Your task to perform on an android device: open the mobile data screen to see how much data has been used Image 0: 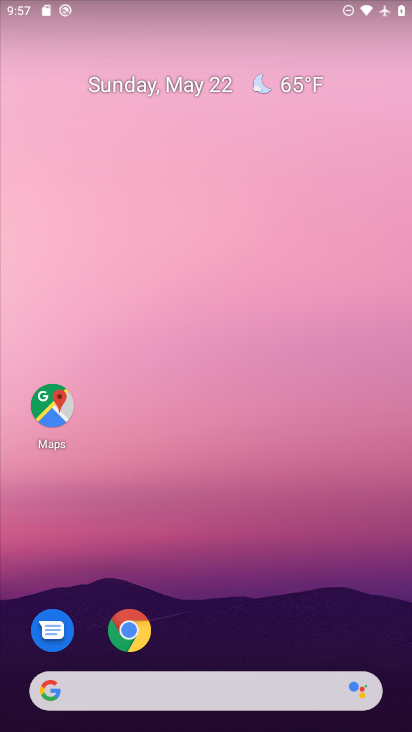
Step 0: press home button
Your task to perform on an android device: open the mobile data screen to see how much data has been used Image 1: 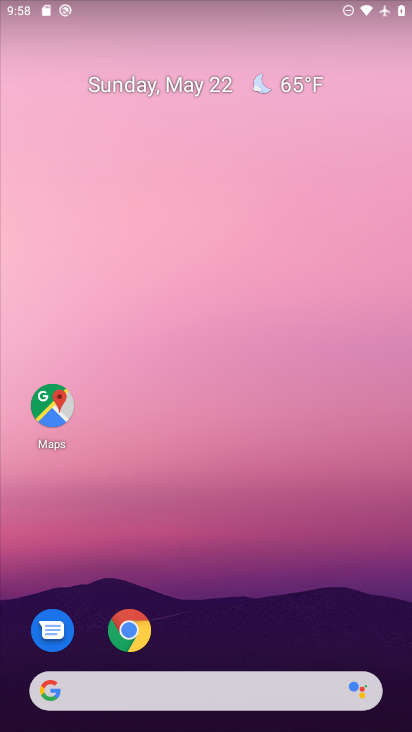
Step 1: drag from (153, 688) to (244, 197)
Your task to perform on an android device: open the mobile data screen to see how much data has been used Image 2: 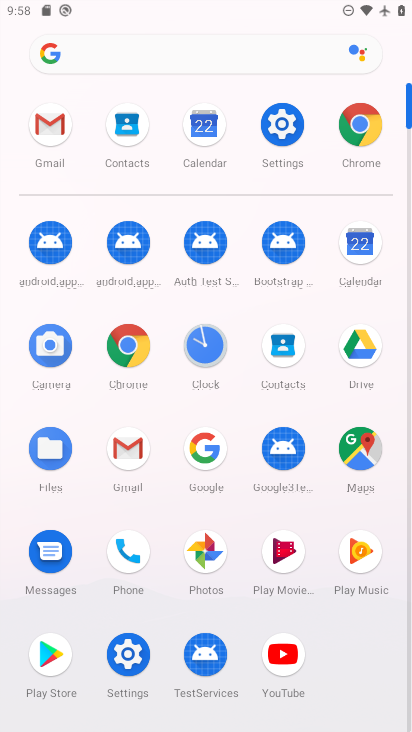
Step 2: click (287, 131)
Your task to perform on an android device: open the mobile data screen to see how much data has been used Image 3: 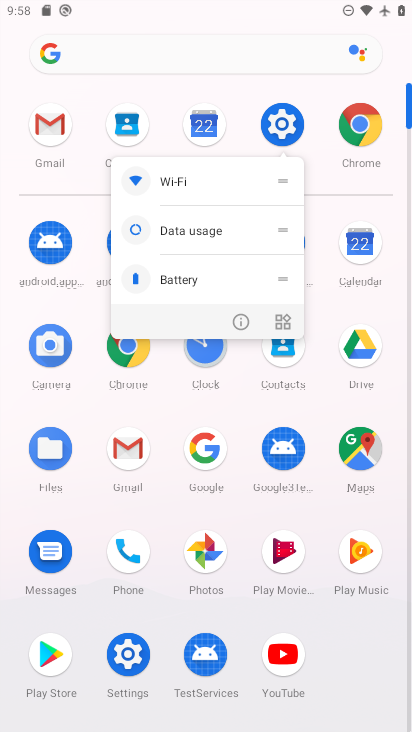
Step 3: click (280, 124)
Your task to perform on an android device: open the mobile data screen to see how much data has been used Image 4: 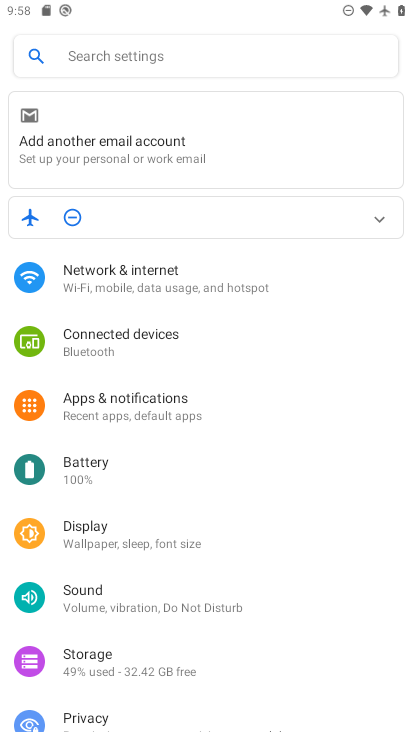
Step 4: click (137, 276)
Your task to perform on an android device: open the mobile data screen to see how much data has been used Image 5: 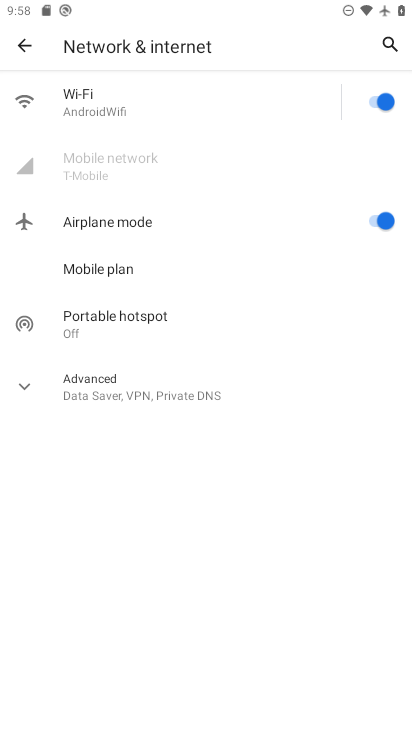
Step 5: task complete